Your task to perform on an android device: Open privacy settings Image 0: 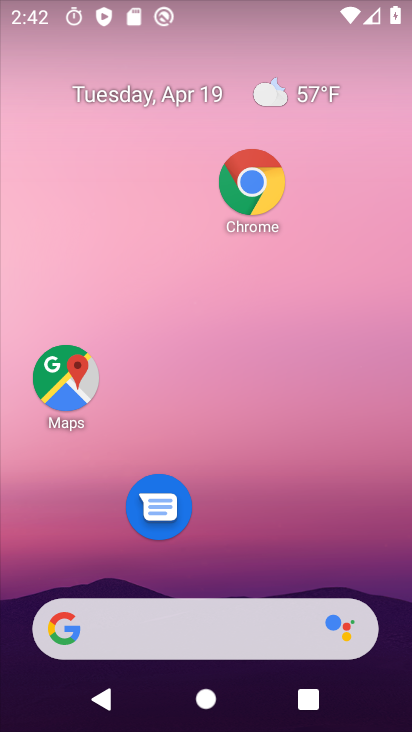
Step 0: drag from (244, 547) to (265, 61)
Your task to perform on an android device: Open privacy settings Image 1: 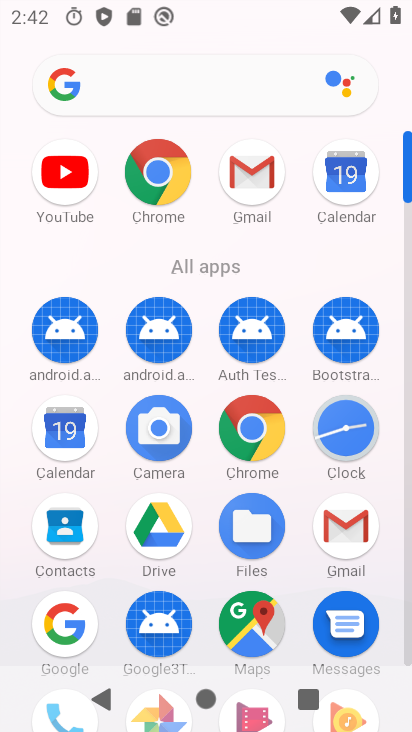
Step 1: click (406, 449)
Your task to perform on an android device: Open privacy settings Image 2: 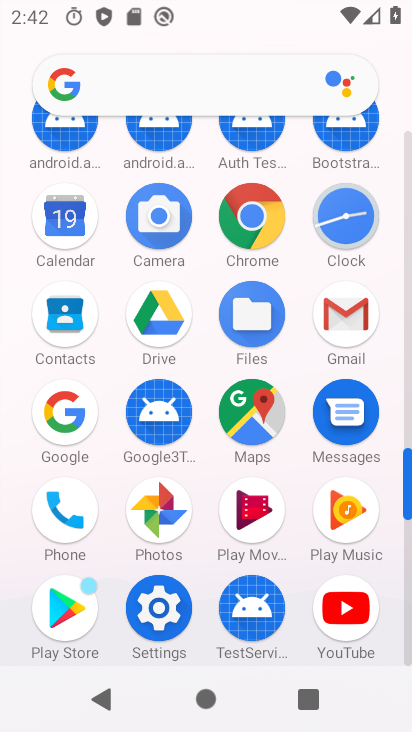
Step 2: click (167, 603)
Your task to perform on an android device: Open privacy settings Image 3: 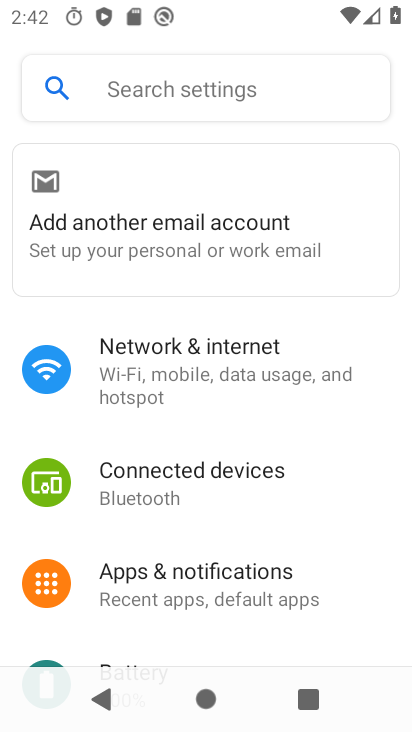
Step 3: drag from (219, 530) to (247, 376)
Your task to perform on an android device: Open privacy settings Image 4: 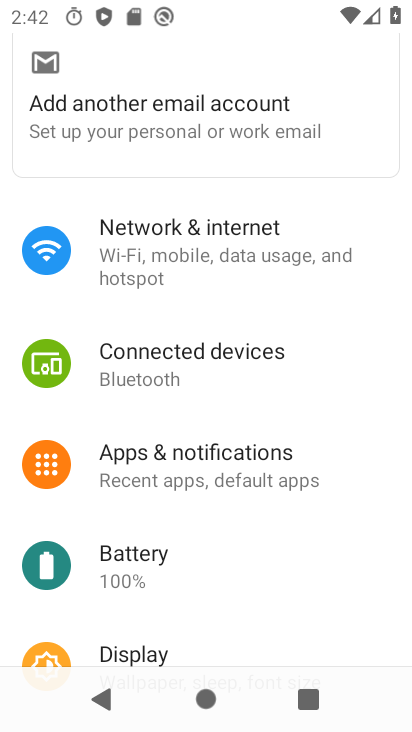
Step 4: drag from (216, 587) to (259, 314)
Your task to perform on an android device: Open privacy settings Image 5: 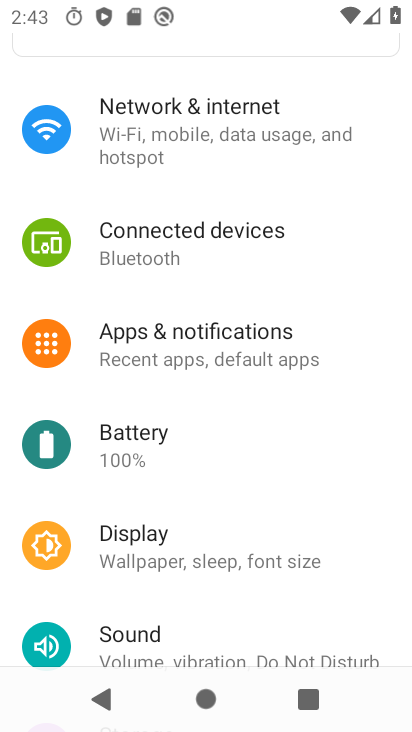
Step 5: drag from (221, 550) to (257, 315)
Your task to perform on an android device: Open privacy settings Image 6: 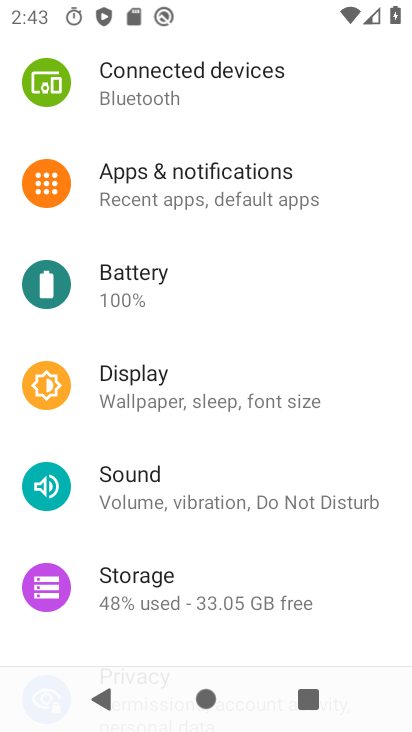
Step 6: drag from (212, 508) to (250, 269)
Your task to perform on an android device: Open privacy settings Image 7: 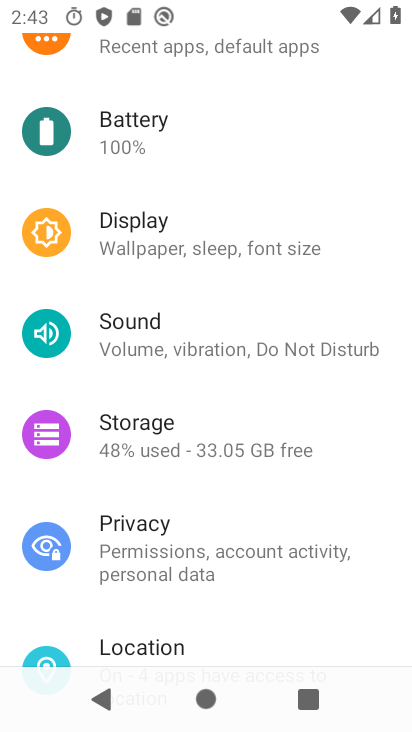
Step 7: click (194, 545)
Your task to perform on an android device: Open privacy settings Image 8: 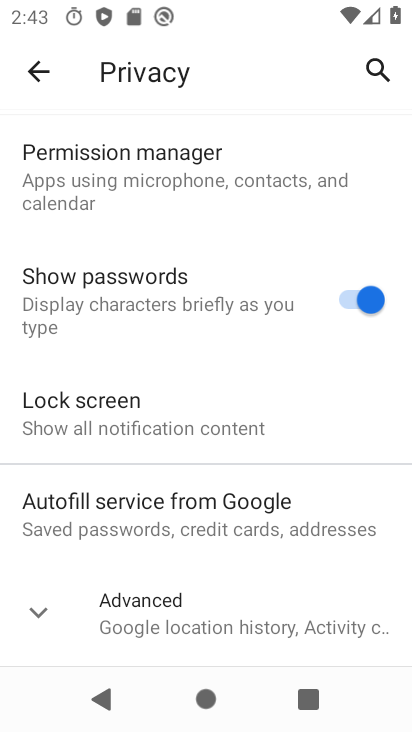
Step 8: task complete